Your task to perform on an android device: Go to Android settings Image 0: 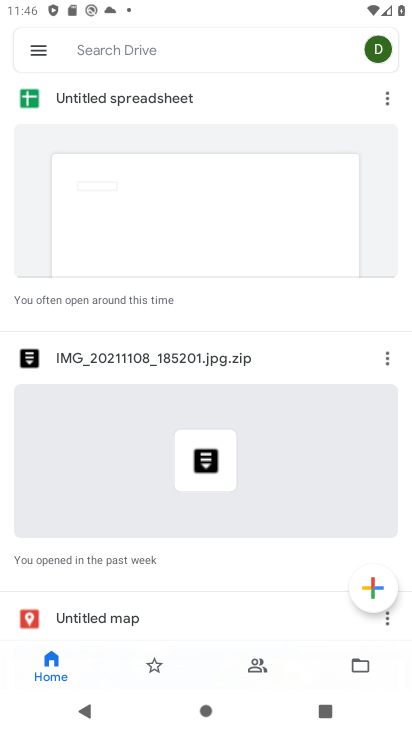
Step 0: press home button
Your task to perform on an android device: Go to Android settings Image 1: 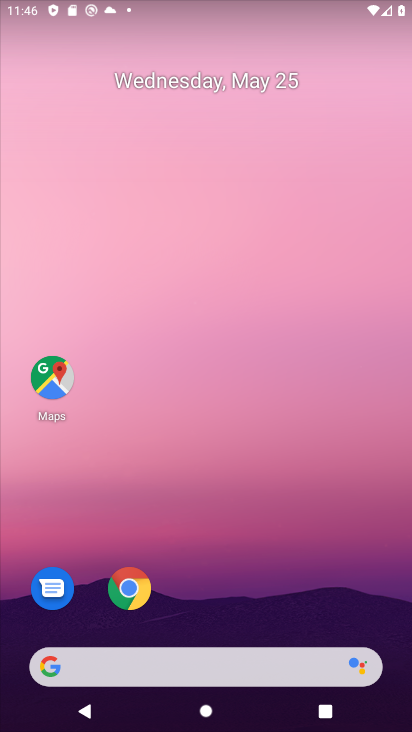
Step 1: drag from (192, 615) to (254, 162)
Your task to perform on an android device: Go to Android settings Image 2: 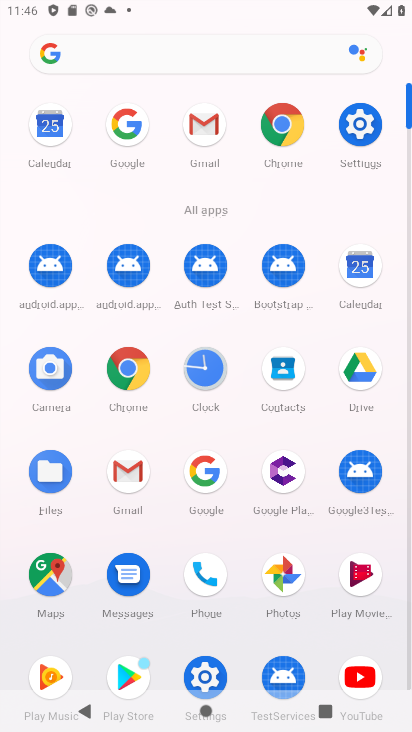
Step 2: click (206, 676)
Your task to perform on an android device: Go to Android settings Image 3: 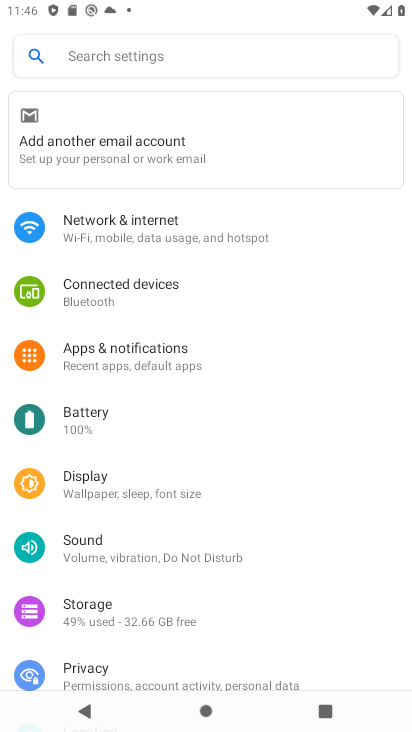
Step 3: drag from (185, 582) to (263, 198)
Your task to perform on an android device: Go to Android settings Image 4: 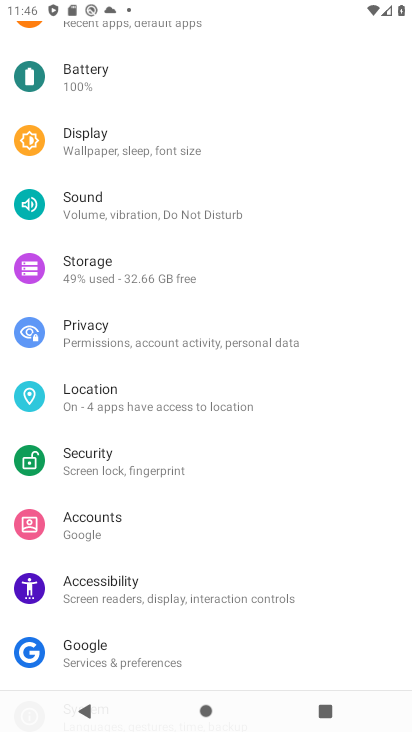
Step 4: drag from (148, 643) to (201, 226)
Your task to perform on an android device: Go to Android settings Image 5: 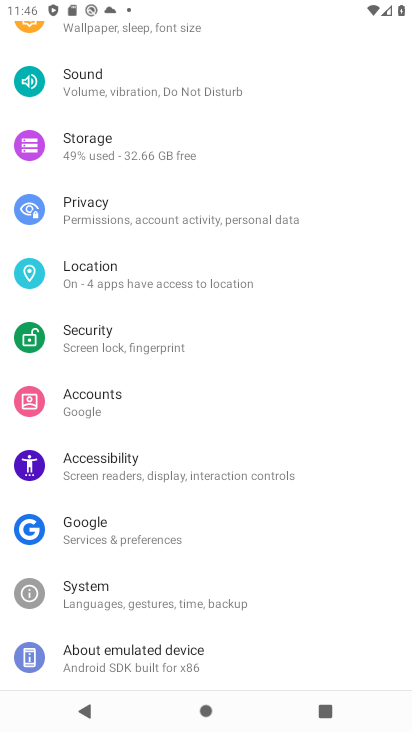
Step 5: click (140, 650)
Your task to perform on an android device: Go to Android settings Image 6: 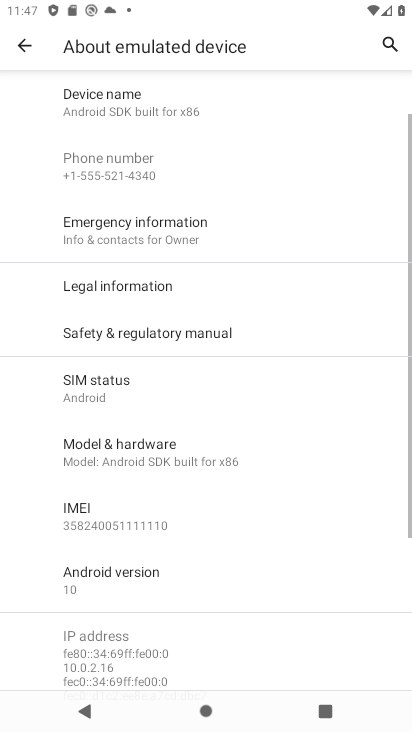
Step 6: click (138, 571)
Your task to perform on an android device: Go to Android settings Image 7: 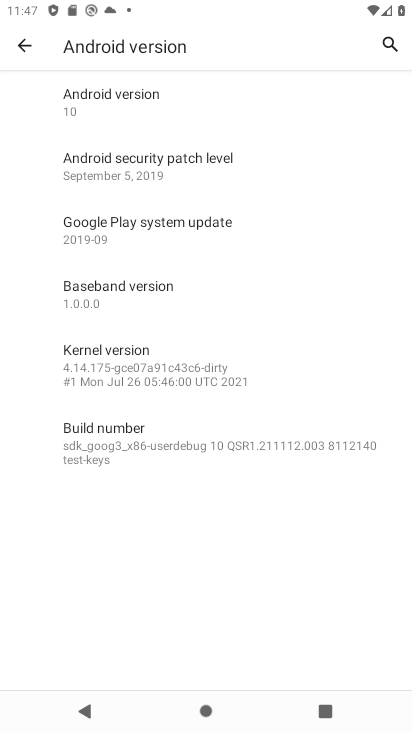
Step 7: task complete